Your task to perform on an android device: uninstall "Facebook" Image 0: 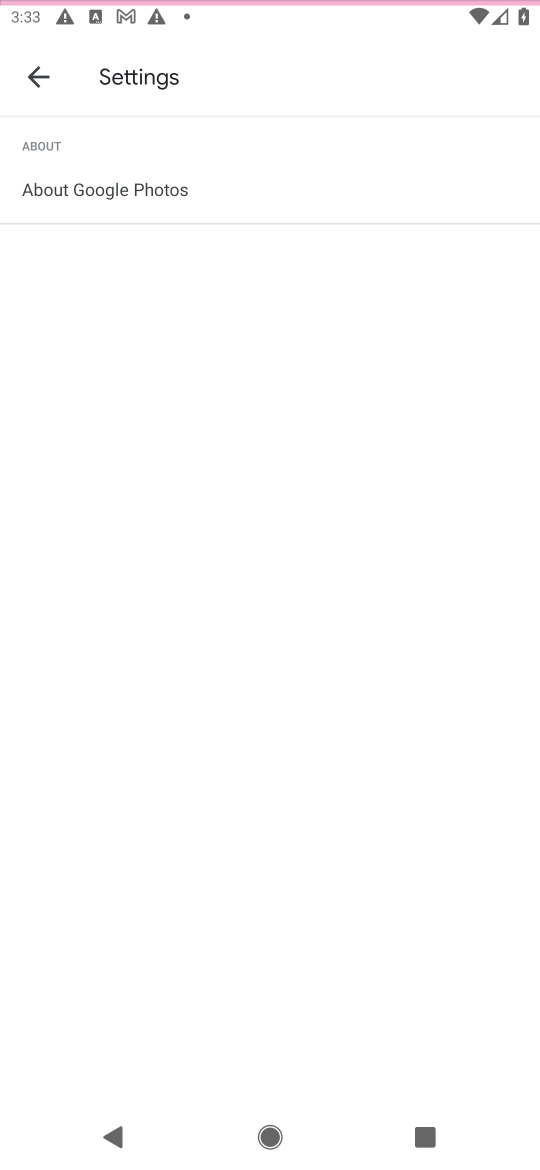
Step 0: press home button
Your task to perform on an android device: uninstall "Facebook" Image 1: 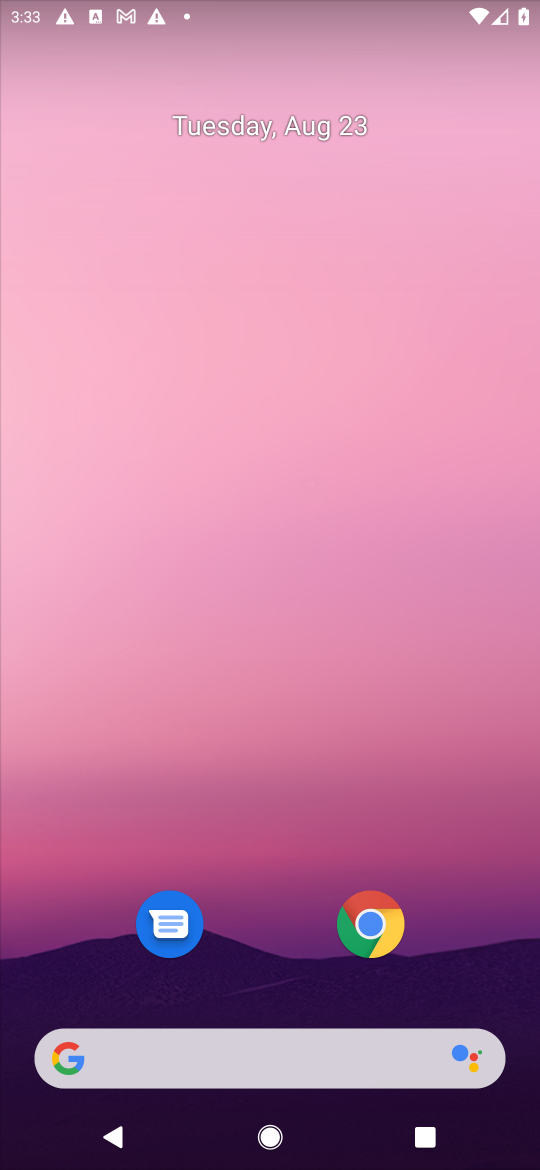
Step 1: drag from (469, 897) to (440, 151)
Your task to perform on an android device: uninstall "Facebook" Image 2: 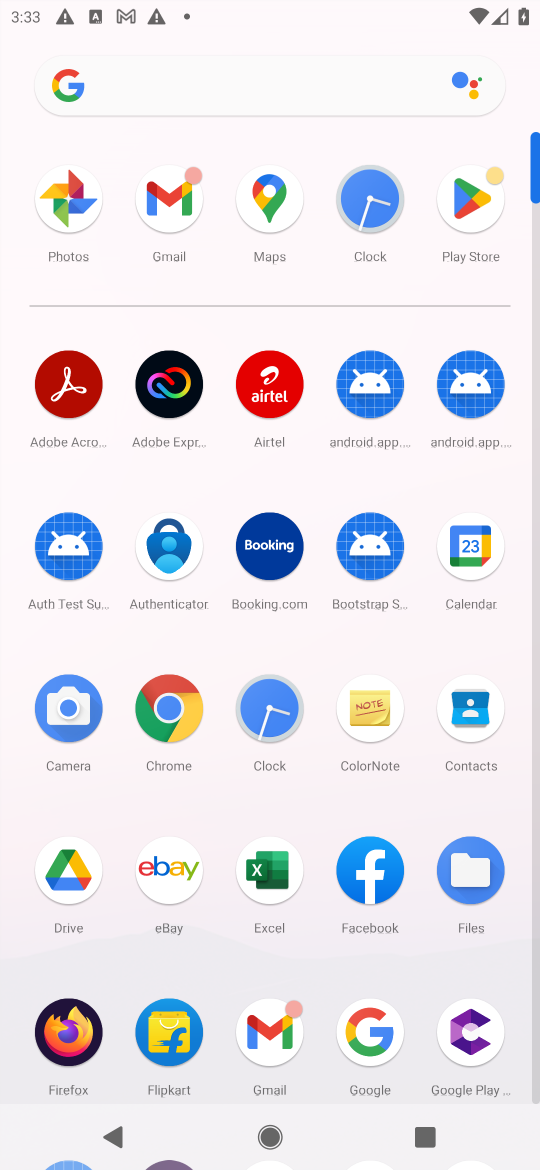
Step 2: click (471, 213)
Your task to perform on an android device: uninstall "Facebook" Image 3: 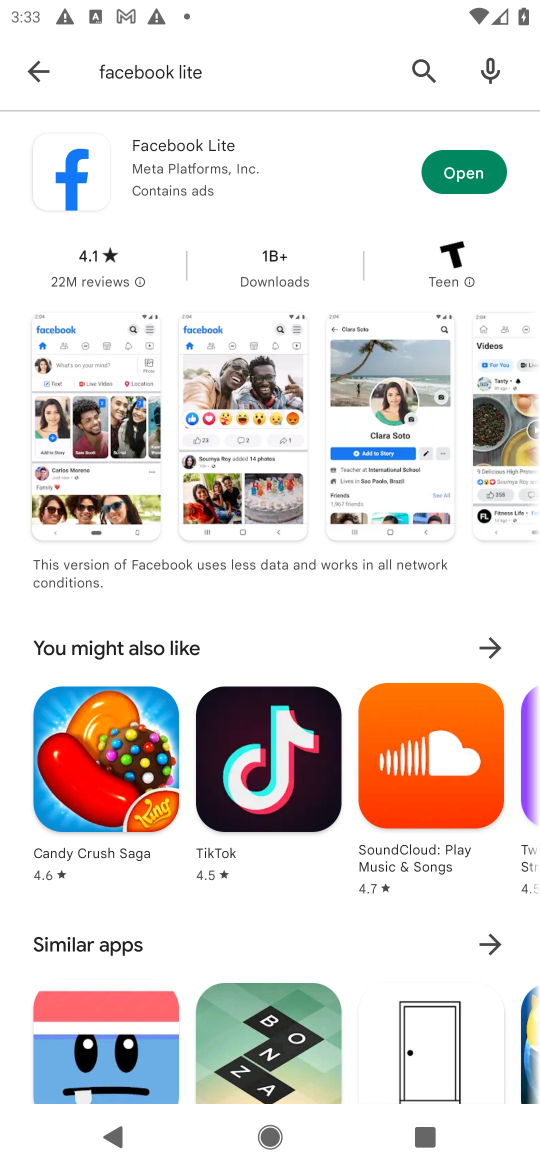
Step 3: press back button
Your task to perform on an android device: uninstall "Facebook" Image 4: 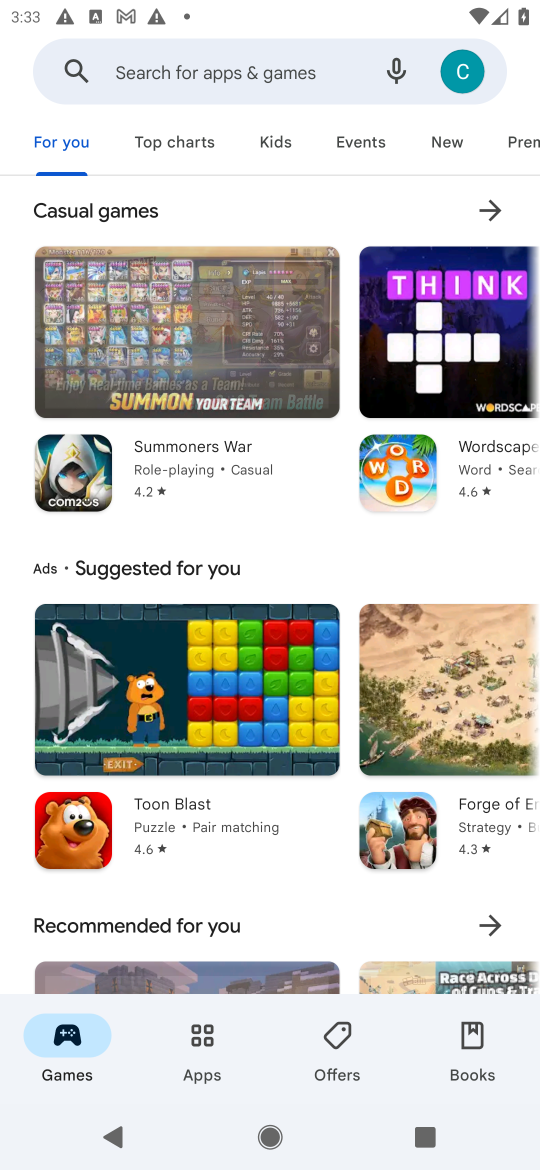
Step 4: click (291, 73)
Your task to perform on an android device: uninstall "Facebook" Image 5: 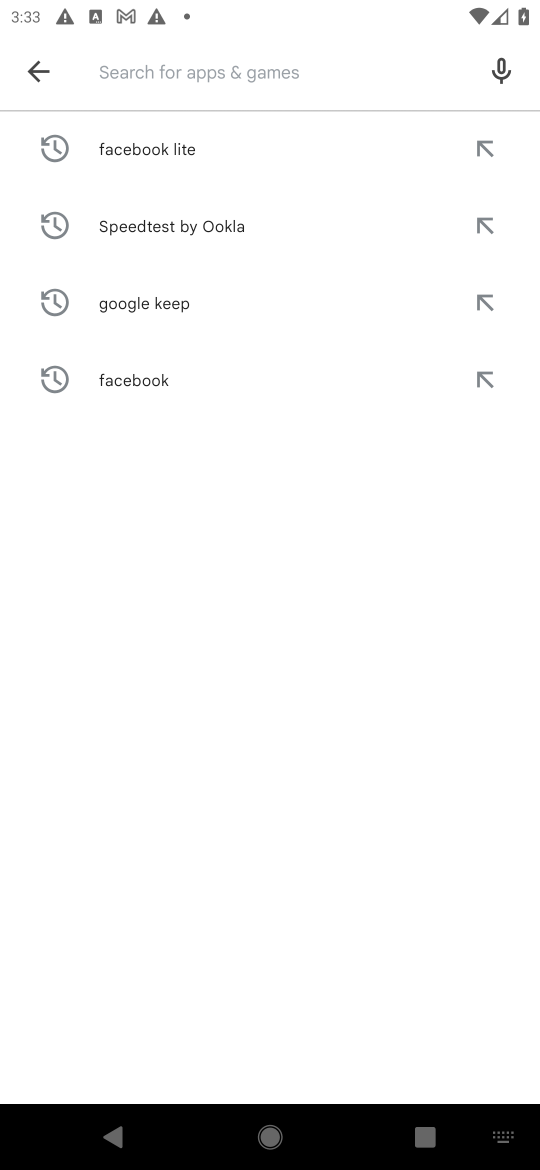
Step 5: press enter
Your task to perform on an android device: uninstall "Facebook" Image 6: 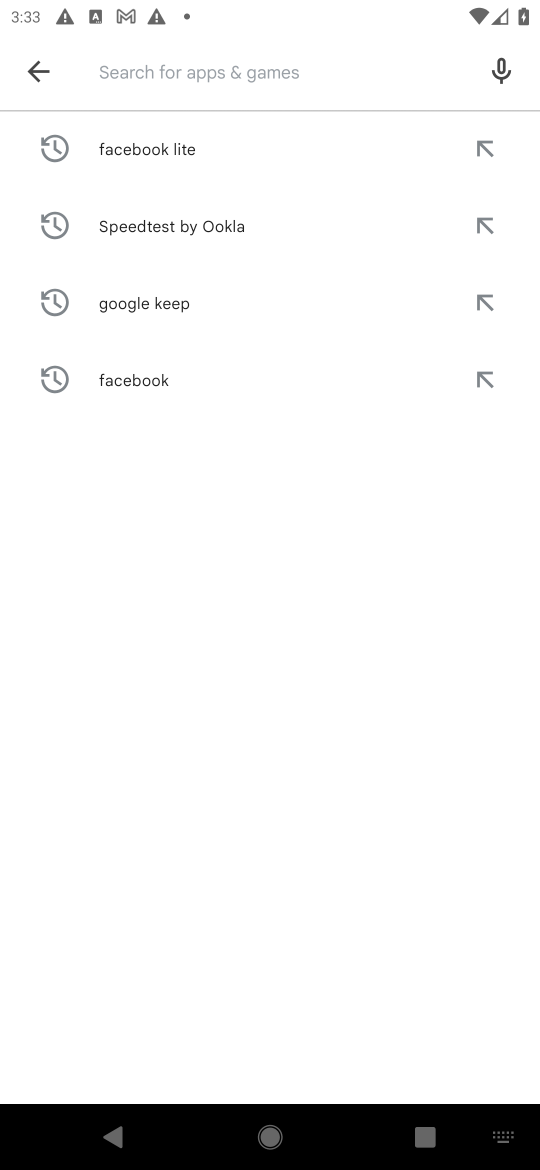
Step 6: type "facebook"
Your task to perform on an android device: uninstall "Facebook" Image 7: 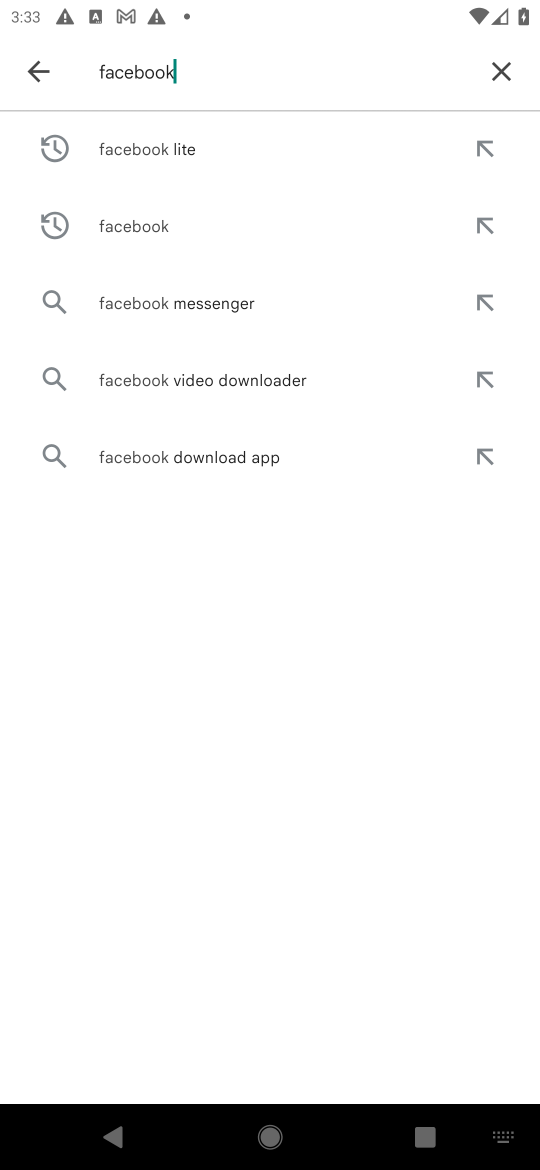
Step 7: click (172, 231)
Your task to perform on an android device: uninstall "Facebook" Image 8: 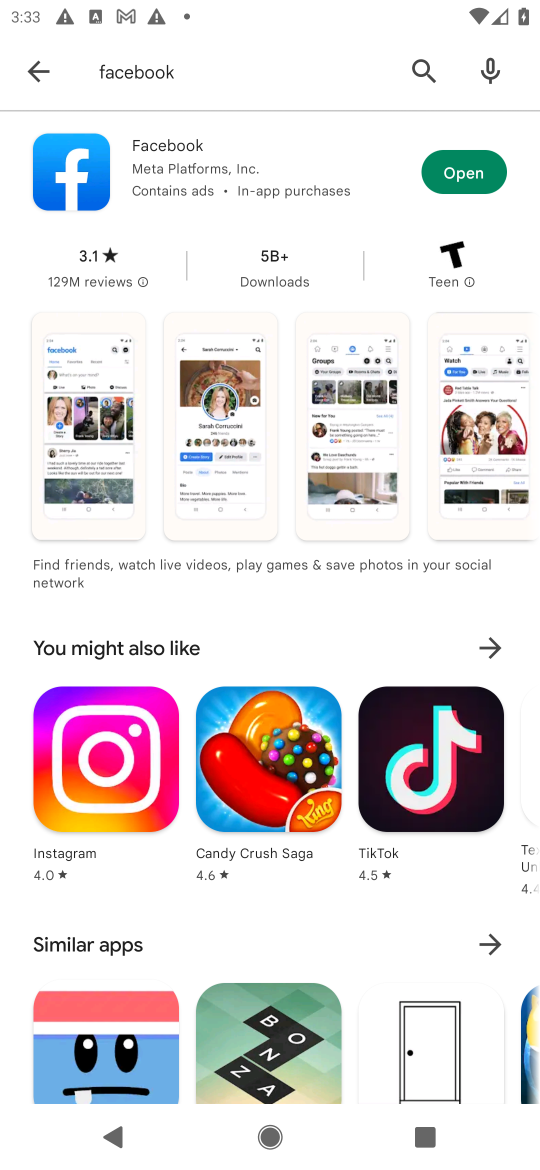
Step 8: task complete